Your task to perform on an android device: Go to Amazon Image 0: 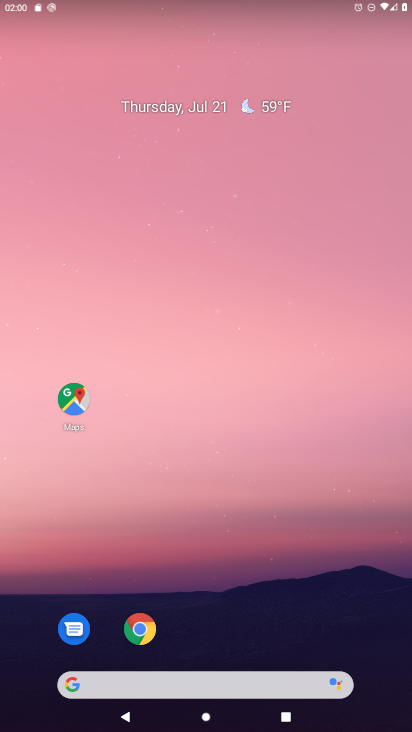
Step 0: click (140, 627)
Your task to perform on an android device: Go to Amazon Image 1: 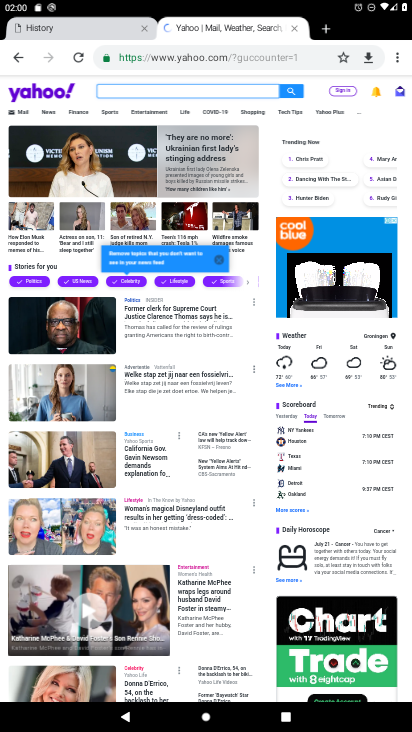
Step 1: click (302, 61)
Your task to perform on an android device: Go to Amazon Image 2: 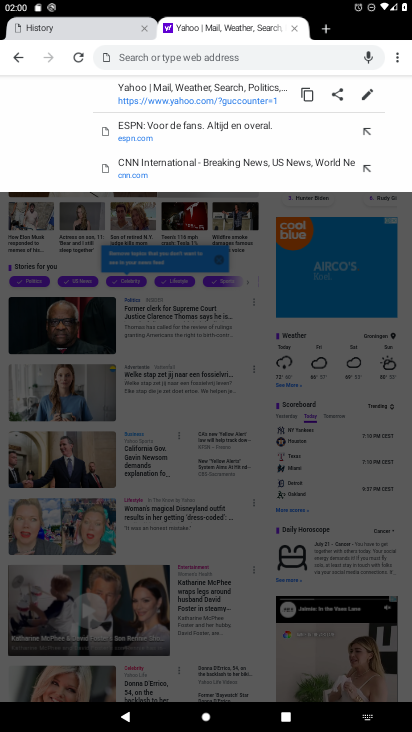
Step 2: type "Amazon"
Your task to perform on an android device: Go to Amazon Image 3: 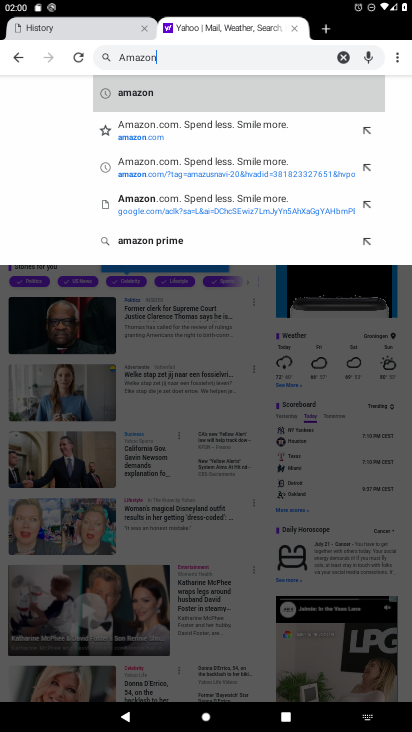
Step 3: click (142, 100)
Your task to perform on an android device: Go to Amazon Image 4: 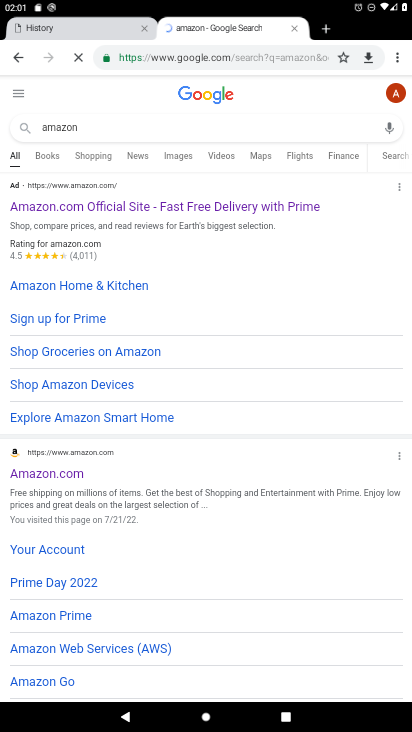
Step 4: click (76, 205)
Your task to perform on an android device: Go to Amazon Image 5: 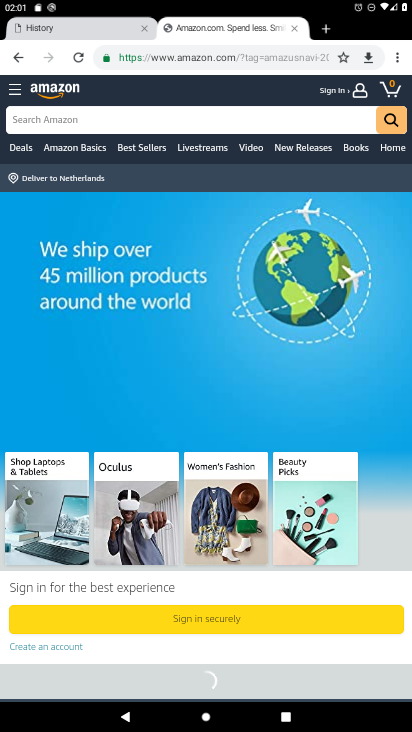
Step 5: task complete